Your task to perform on an android device: check the backup settings in the google photos Image 0: 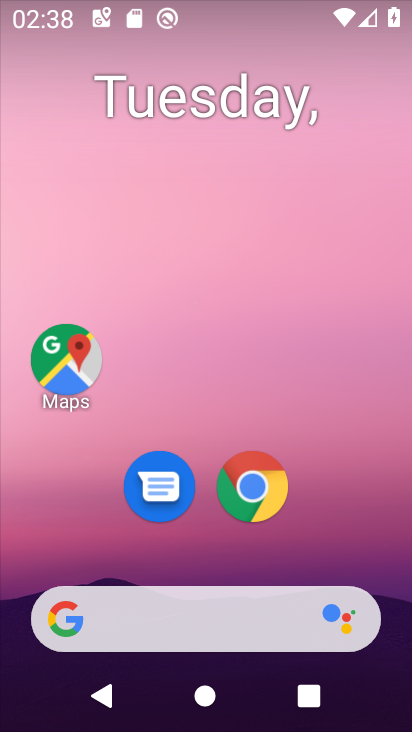
Step 0: press home button
Your task to perform on an android device: check the backup settings in the google photos Image 1: 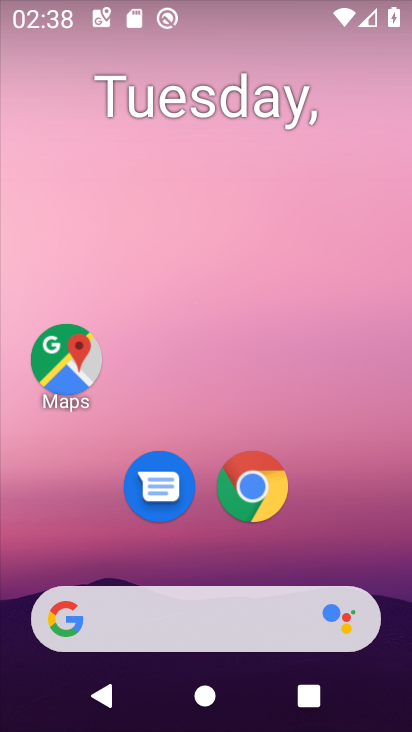
Step 1: drag from (205, 571) to (212, 54)
Your task to perform on an android device: check the backup settings in the google photos Image 2: 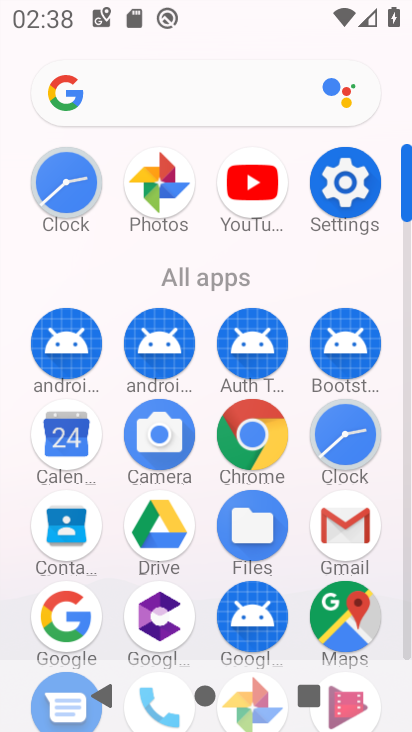
Step 2: drag from (203, 642) to (217, 163)
Your task to perform on an android device: check the backup settings in the google photos Image 3: 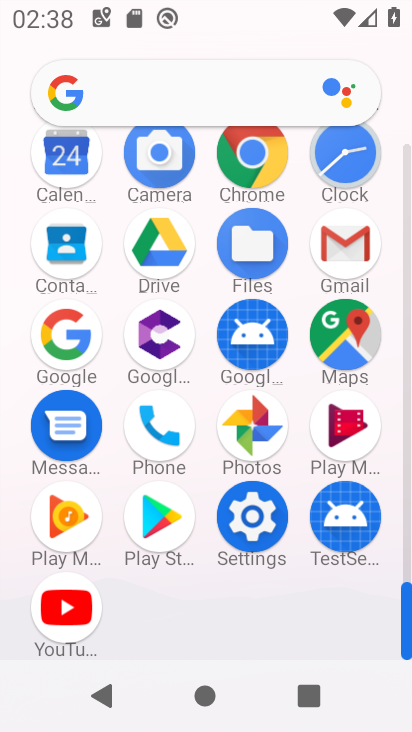
Step 3: click (250, 420)
Your task to perform on an android device: check the backup settings in the google photos Image 4: 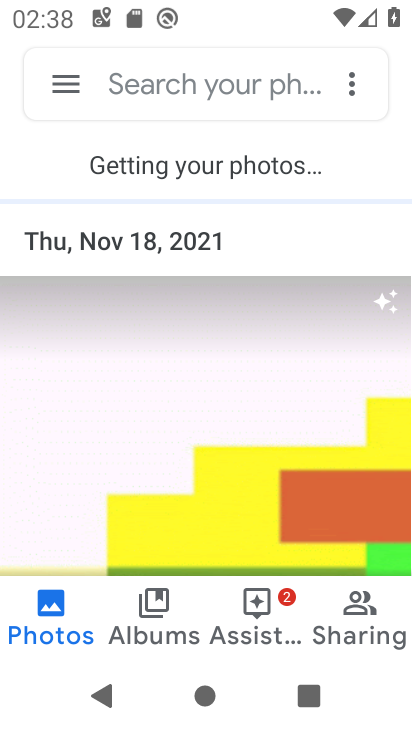
Step 4: click (61, 79)
Your task to perform on an android device: check the backup settings in the google photos Image 5: 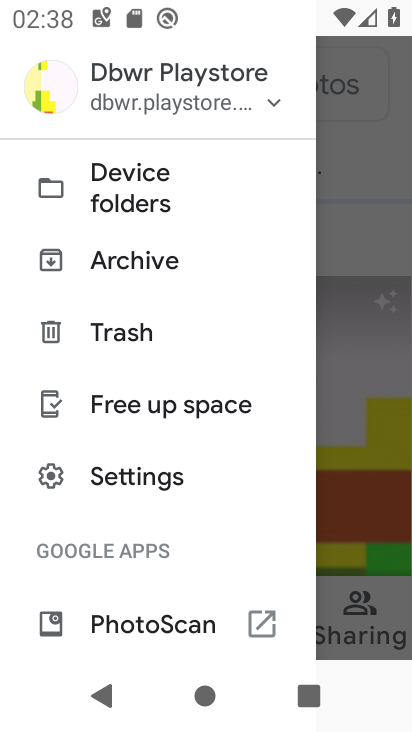
Step 5: click (77, 473)
Your task to perform on an android device: check the backup settings in the google photos Image 6: 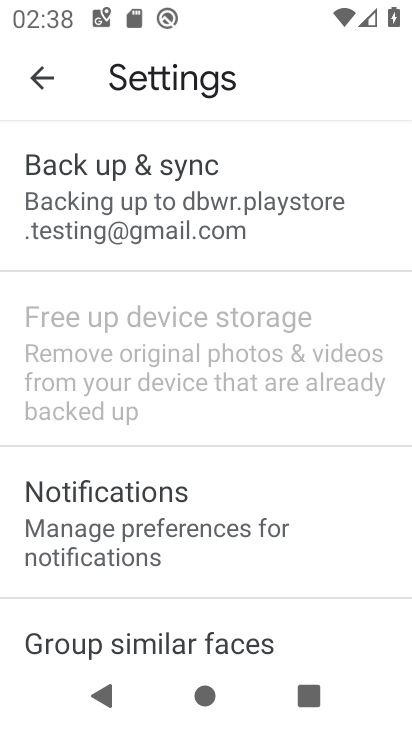
Step 6: click (159, 203)
Your task to perform on an android device: check the backup settings in the google photos Image 7: 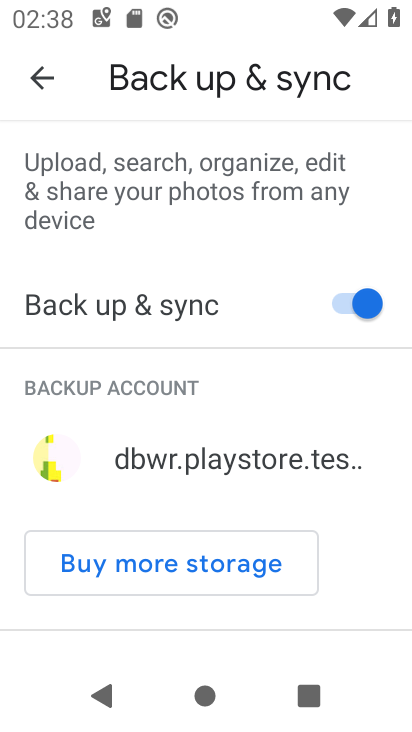
Step 7: task complete